Your task to perform on an android device: Open the stopwatch Image 0: 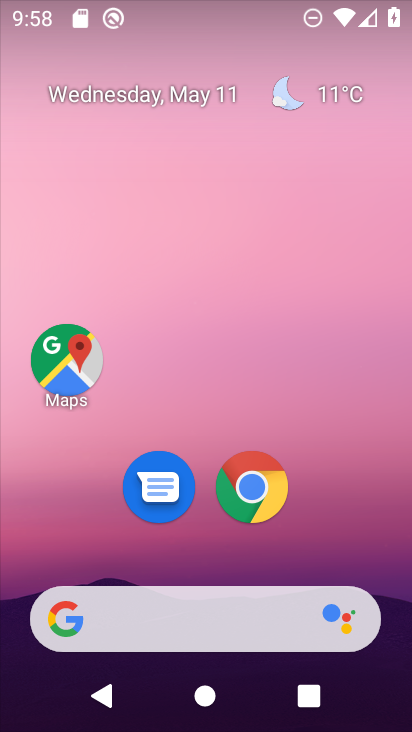
Step 0: drag from (310, 656) to (269, 165)
Your task to perform on an android device: Open the stopwatch Image 1: 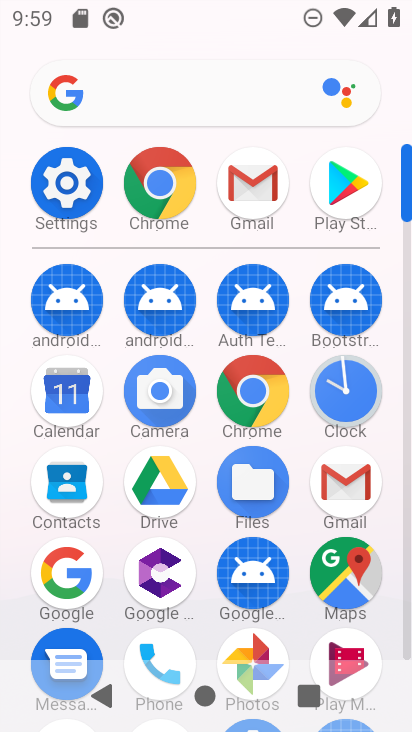
Step 1: click (366, 389)
Your task to perform on an android device: Open the stopwatch Image 2: 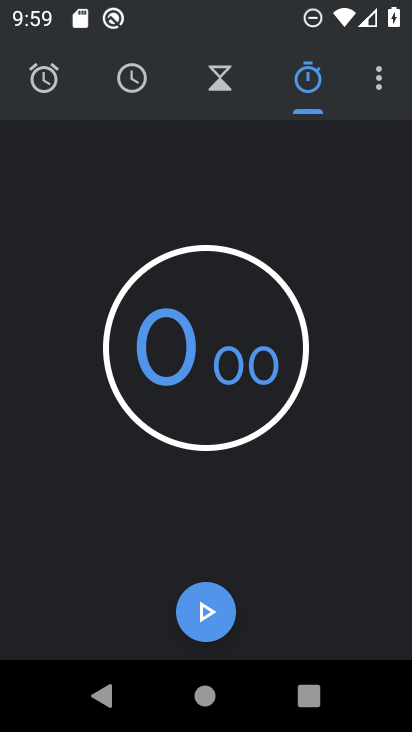
Step 2: click (219, 70)
Your task to perform on an android device: Open the stopwatch Image 3: 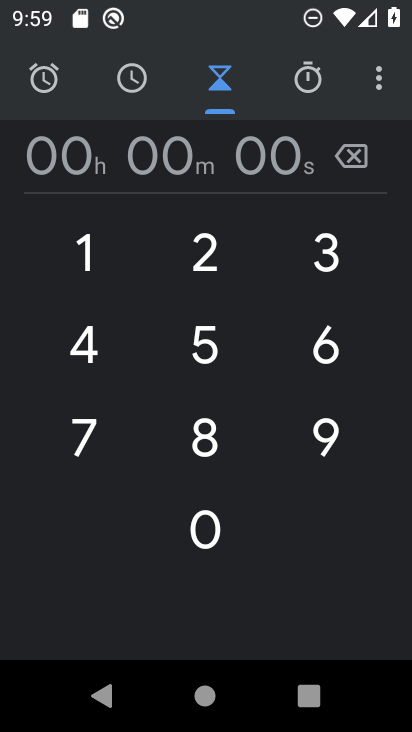
Step 3: click (304, 89)
Your task to perform on an android device: Open the stopwatch Image 4: 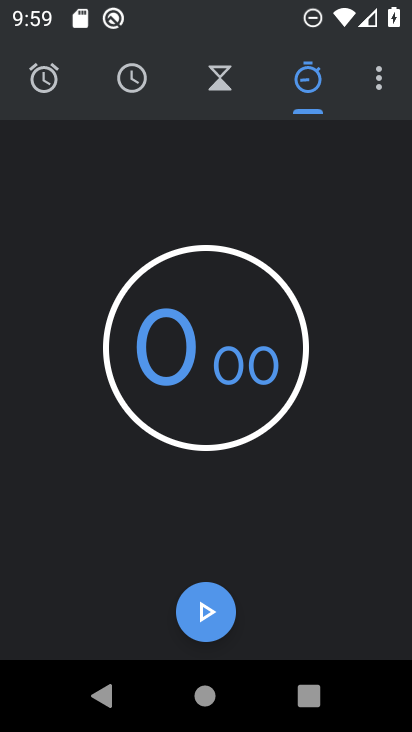
Step 4: task complete